Your task to perform on an android device: move an email to a new category in the gmail app Image 0: 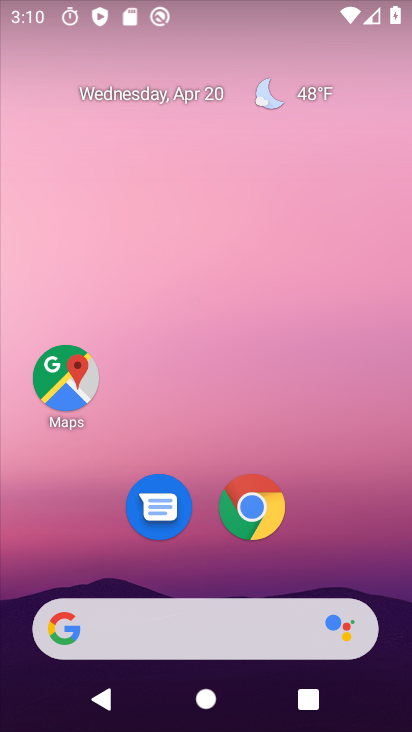
Step 0: drag from (205, 622) to (195, 63)
Your task to perform on an android device: move an email to a new category in the gmail app Image 1: 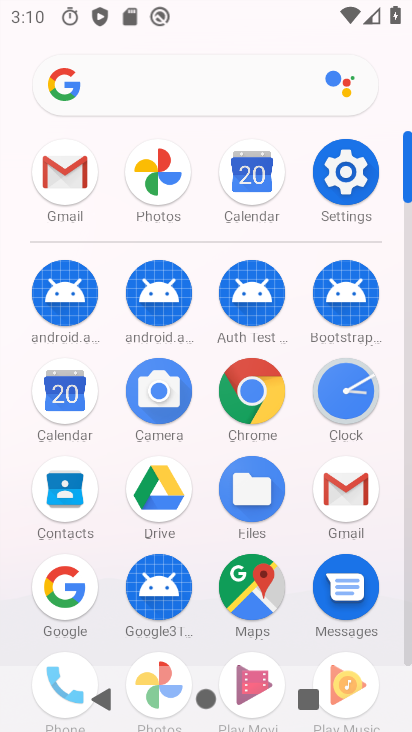
Step 1: click (339, 504)
Your task to perform on an android device: move an email to a new category in the gmail app Image 2: 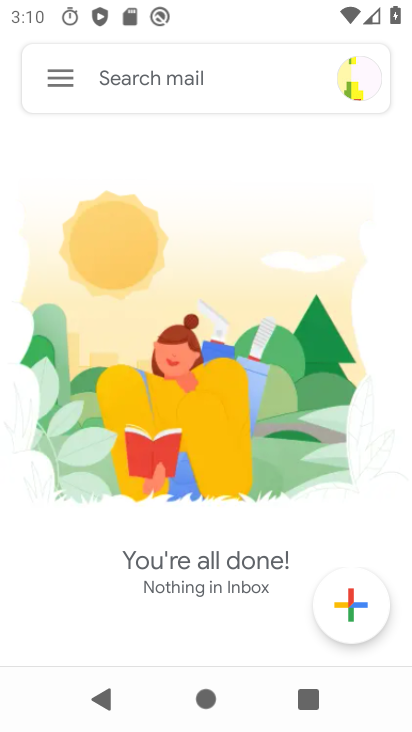
Step 2: click (38, 73)
Your task to perform on an android device: move an email to a new category in the gmail app Image 3: 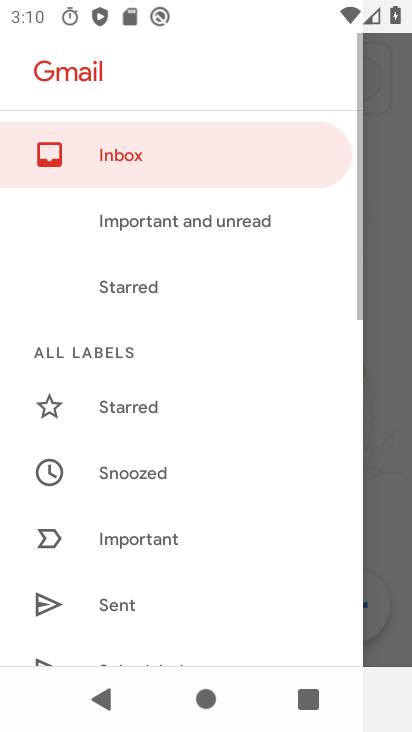
Step 3: drag from (156, 566) to (127, 83)
Your task to perform on an android device: move an email to a new category in the gmail app Image 4: 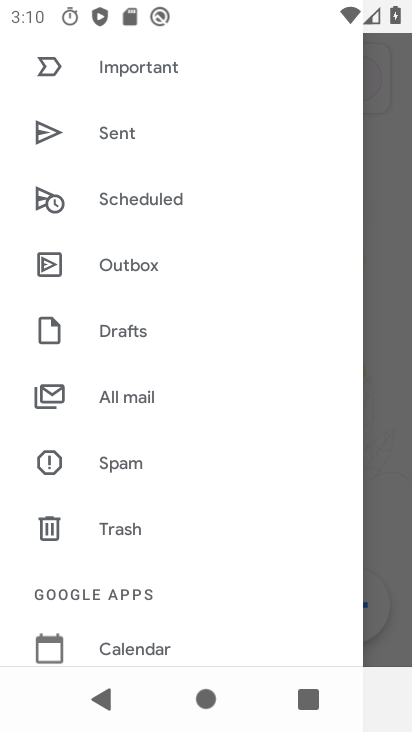
Step 4: click (110, 394)
Your task to perform on an android device: move an email to a new category in the gmail app Image 5: 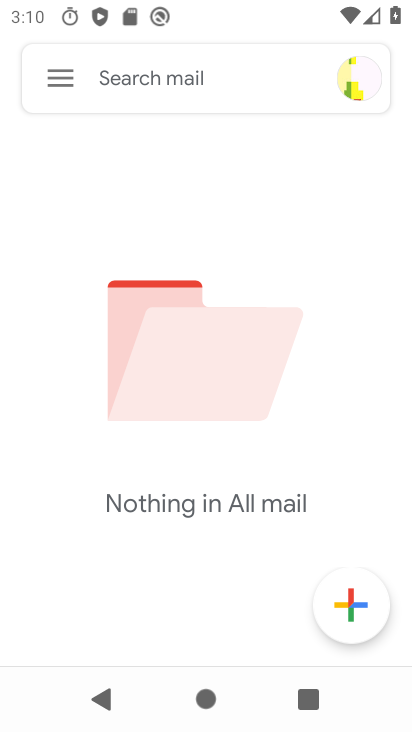
Step 5: task complete